Your task to perform on an android device: turn on data saver in the chrome app Image 0: 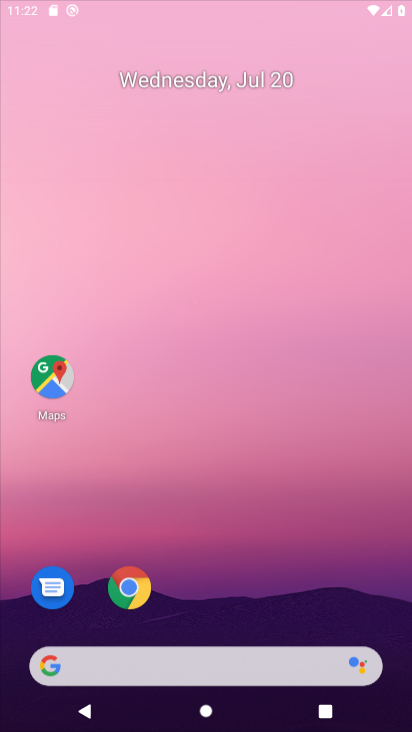
Step 0: press home button
Your task to perform on an android device: turn on data saver in the chrome app Image 1: 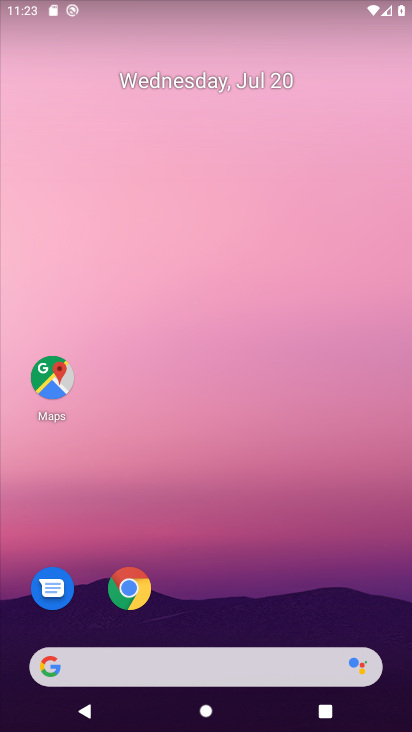
Step 1: click (128, 584)
Your task to perform on an android device: turn on data saver in the chrome app Image 2: 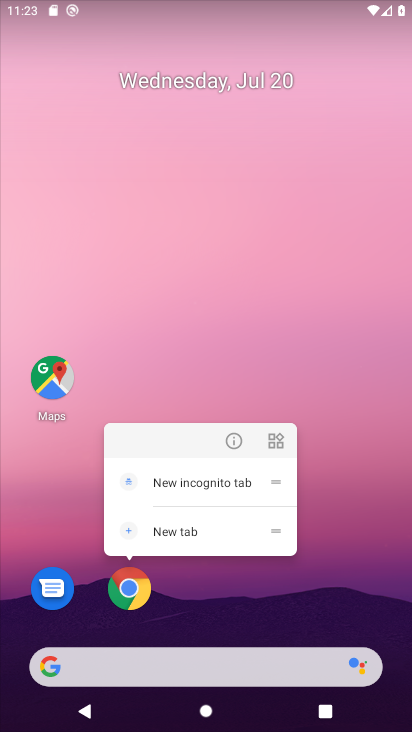
Step 2: click (128, 584)
Your task to perform on an android device: turn on data saver in the chrome app Image 3: 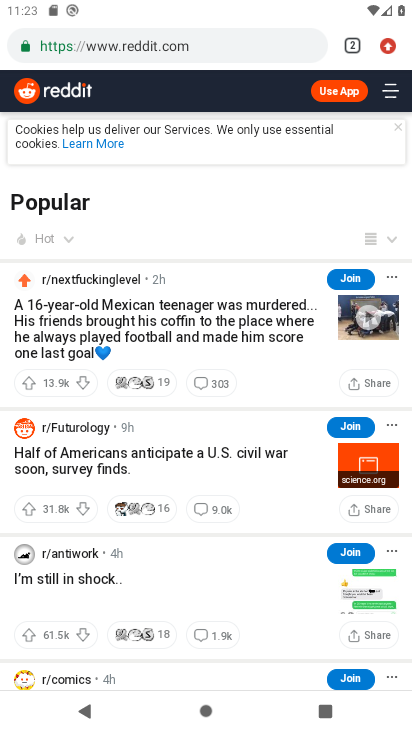
Step 3: click (386, 40)
Your task to perform on an android device: turn on data saver in the chrome app Image 4: 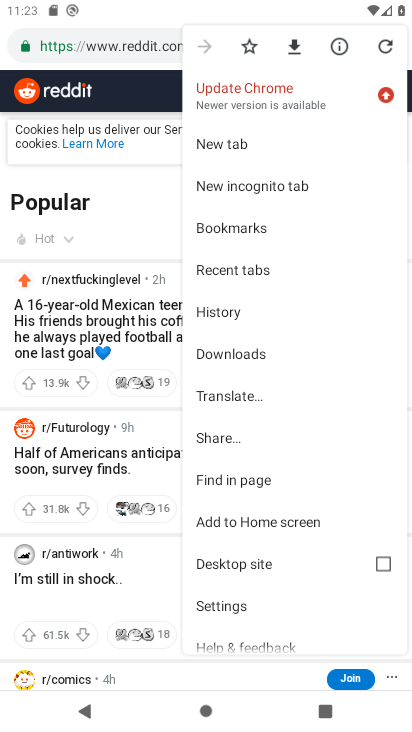
Step 4: click (254, 602)
Your task to perform on an android device: turn on data saver in the chrome app Image 5: 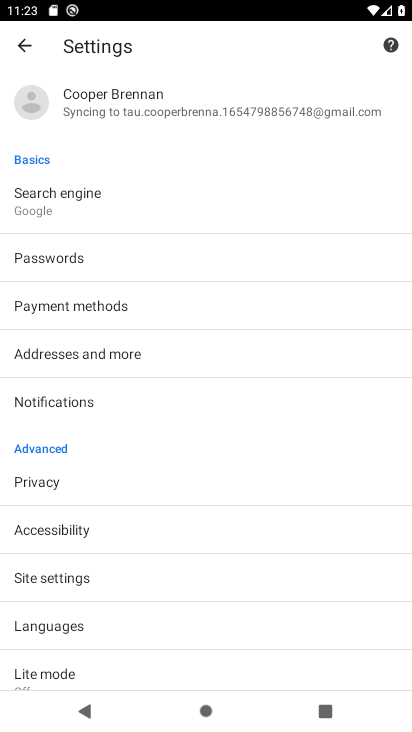
Step 5: click (112, 670)
Your task to perform on an android device: turn on data saver in the chrome app Image 6: 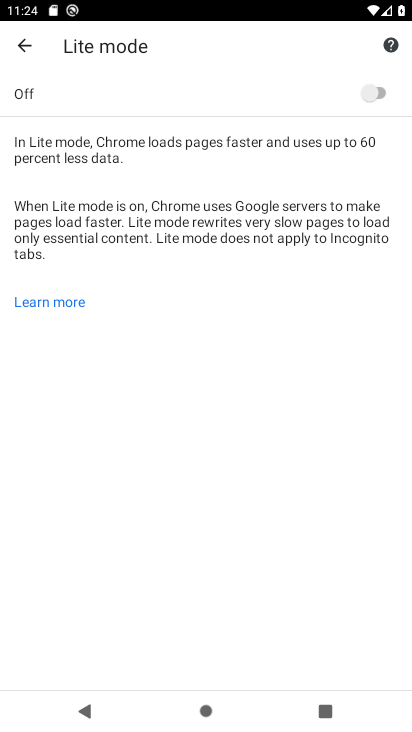
Step 6: click (376, 88)
Your task to perform on an android device: turn on data saver in the chrome app Image 7: 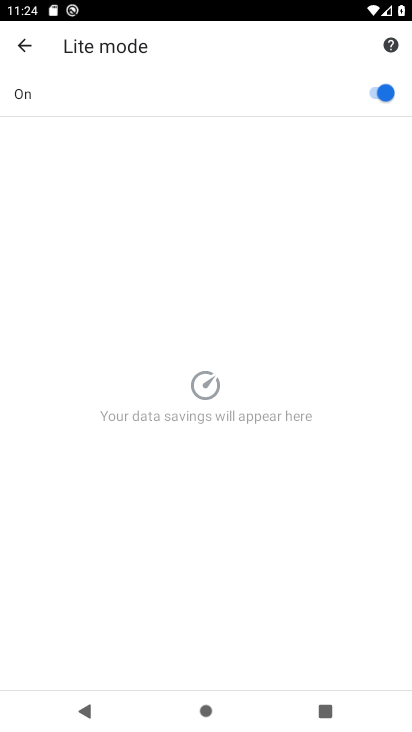
Step 7: task complete